Your task to perform on an android device: Open network settings Image 0: 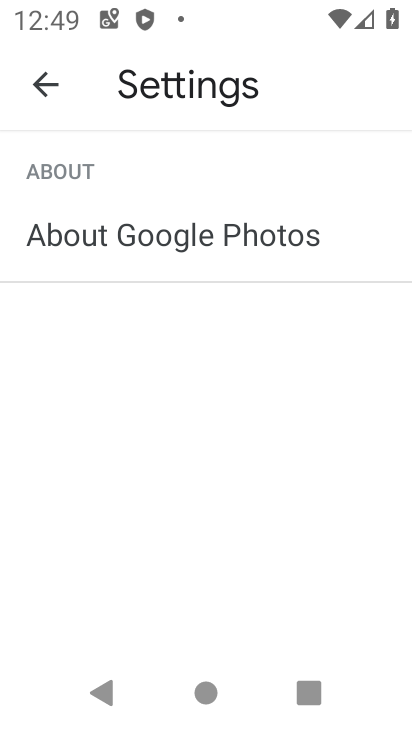
Step 0: press home button
Your task to perform on an android device: Open network settings Image 1: 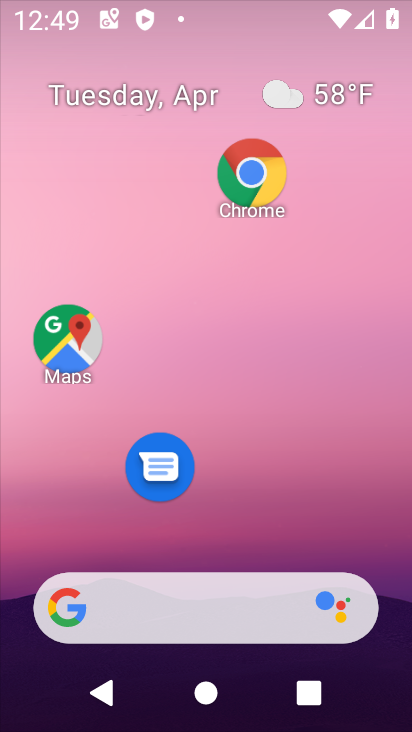
Step 1: drag from (191, 646) to (285, 72)
Your task to perform on an android device: Open network settings Image 2: 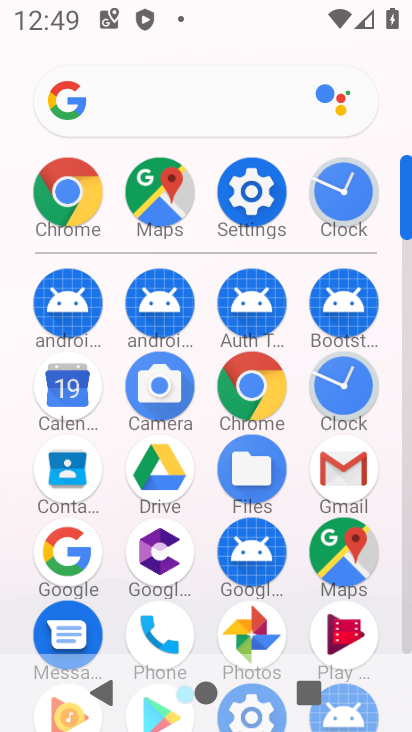
Step 2: click (247, 197)
Your task to perform on an android device: Open network settings Image 3: 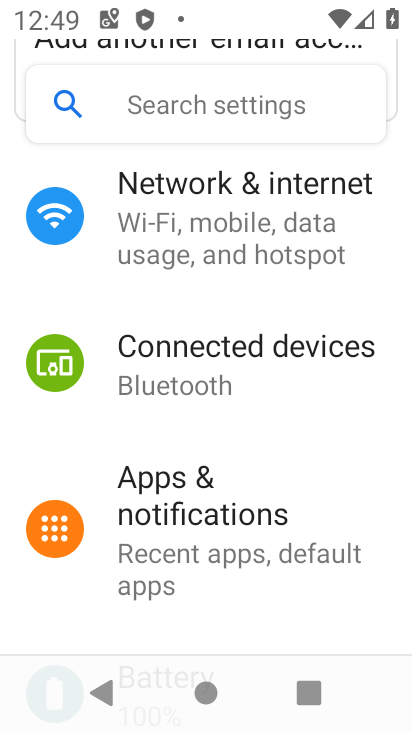
Step 3: click (247, 197)
Your task to perform on an android device: Open network settings Image 4: 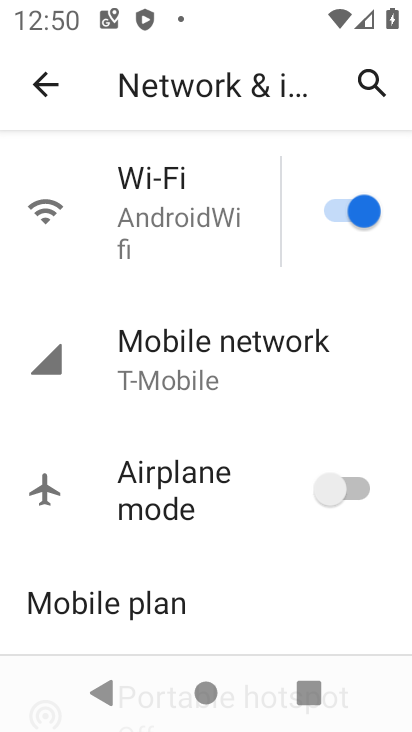
Step 4: click (220, 390)
Your task to perform on an android device: Open network settings Image 5: 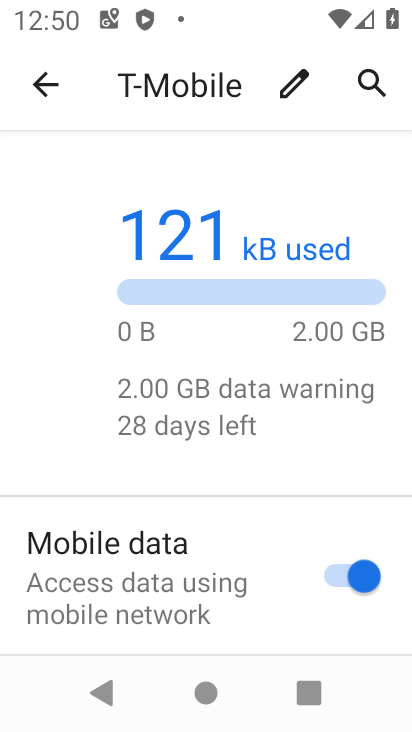
Step 5: task complete